Your task to perform on an android device: Open Youtube and go to "Your channel" Image 0: 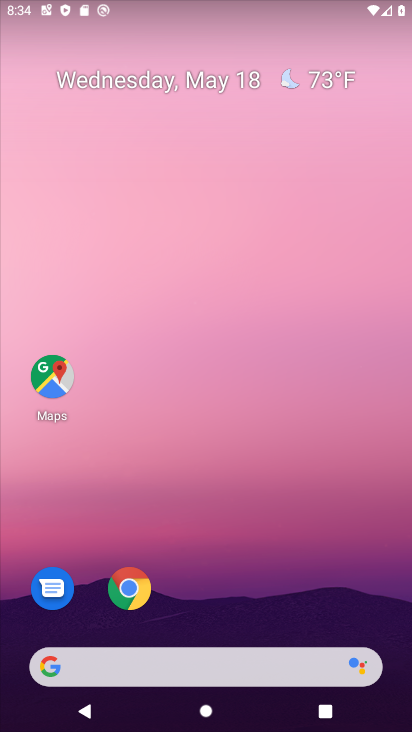
Step 0: drag from (388, 581) to (326, 123)
Your task to perform on an android device: Open Youtube and go to "Your channel" Image 1: 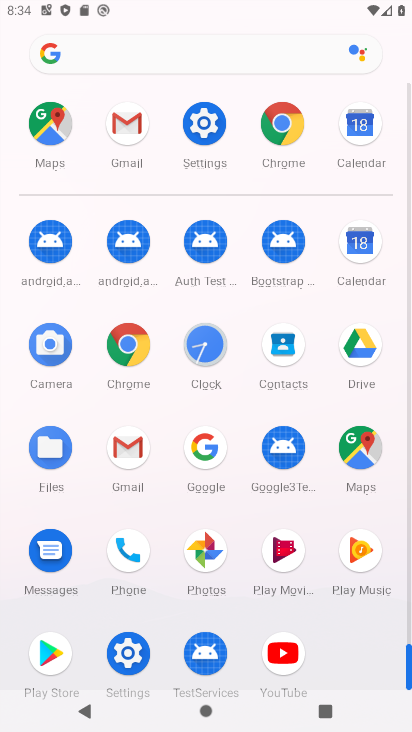
Step 1: click (286, 658)
Your task to perform on an android device: Open Youtube and go to "Your channel" Image 2: 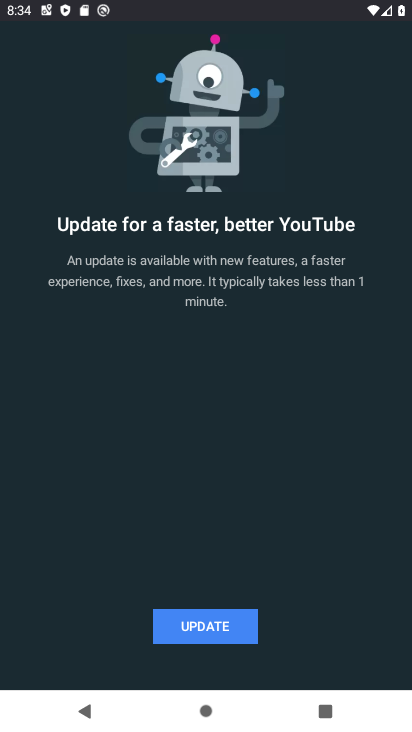
Step 2: click (244, 624)
Your task to perform on an android device: Open Youtube and go to "Your channel" Image 3: 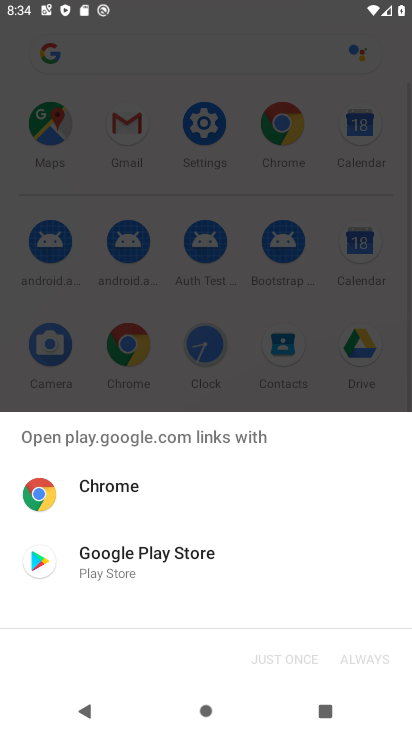
Step 3: click (110, 560)
Your task to perform on an android device: Open Youtube and go to "Your channel" Image 4: 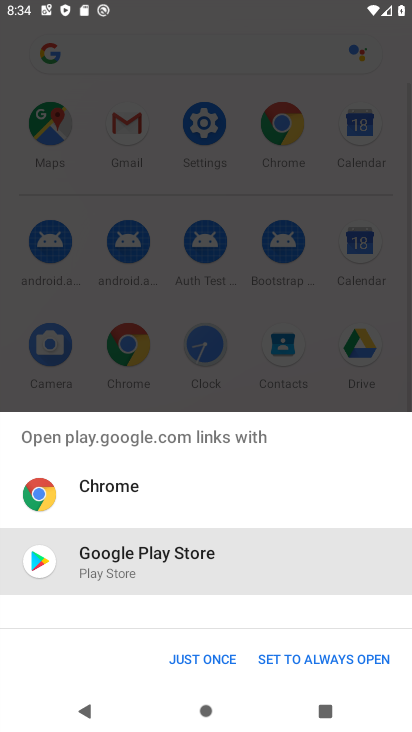
Step 4: click (212, 659)
Your task to perform on an android device: Open Youtube and go to "Your channel" Image 5: 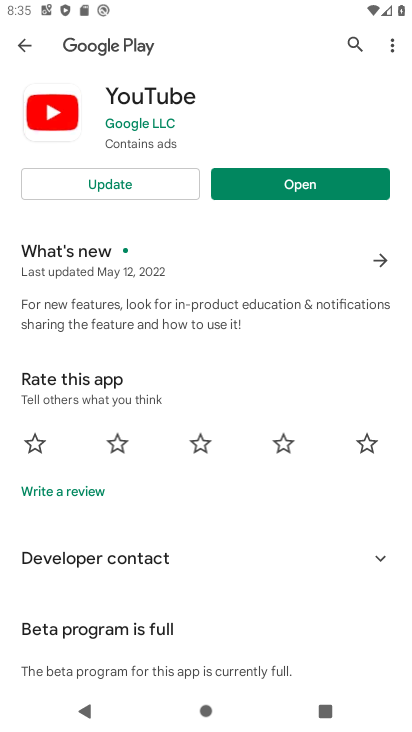
Step 5: click (158, 187)
Your task to perform on an android device: Open Youtube and go to "Your channel" Image 6: 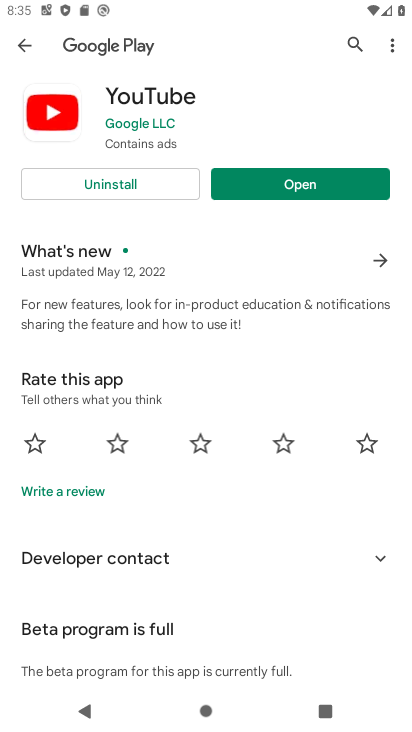
Step 6: click (241, 180)
Your task to perform on an android device: Open Youtube and go to "Your channel" Image 7: 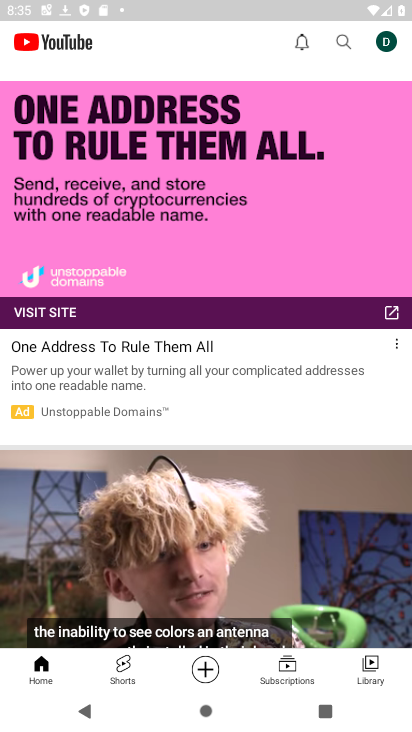
Step 7: click (393, 41)
Your task to perform on an android device: Open Youtube and go to "Your channel" Image 8: 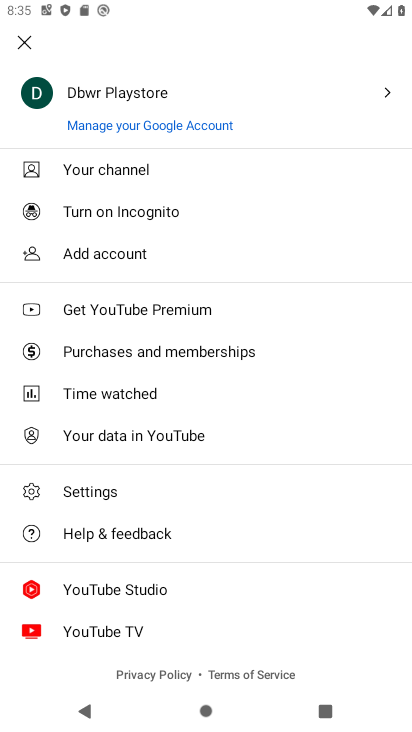
Step 8: click (170, 157)
Your task to perform on an android device: Open Youtube and go to "Your channel" Image 9: 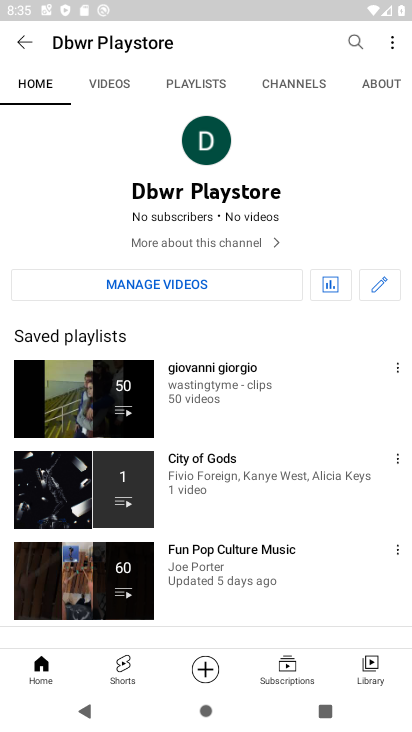
Step 9: task complete